Your task to perform on an android device: Go to ESPN.com Image 0: 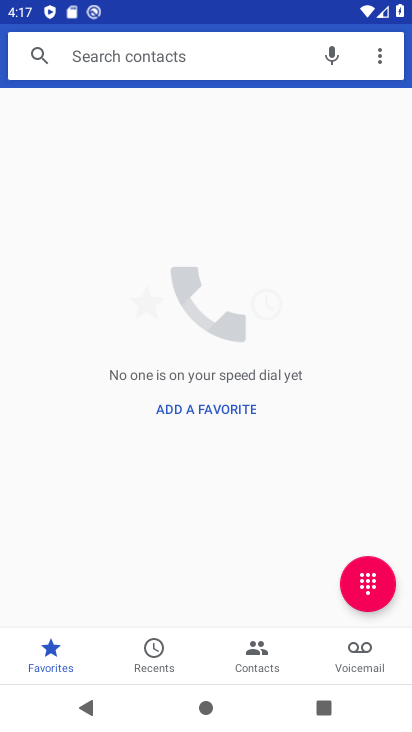
Step 0: press home button
Your task to perform on an android device: Go to ESPN.com Image 1: 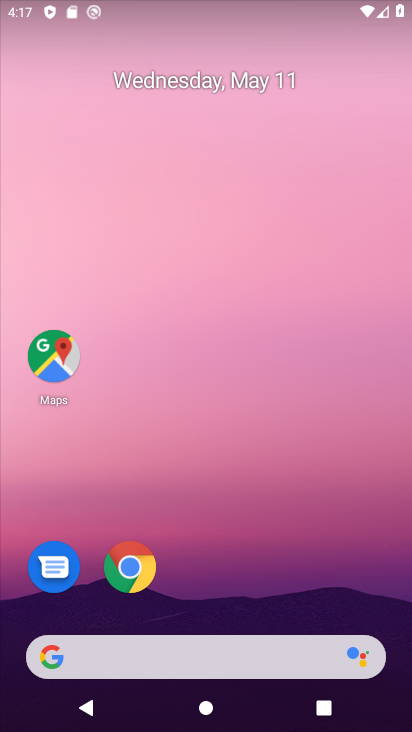
Step 1: click (140, 570)
Your task to perform on an android device: Go to ESPN.com Image 2: 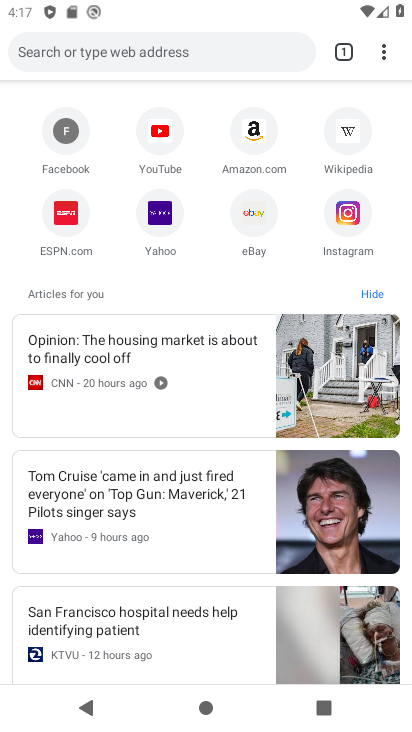
Step 2: click (77, 224)
Your task to perform on an android device: Go to ESPN.com Image 3: 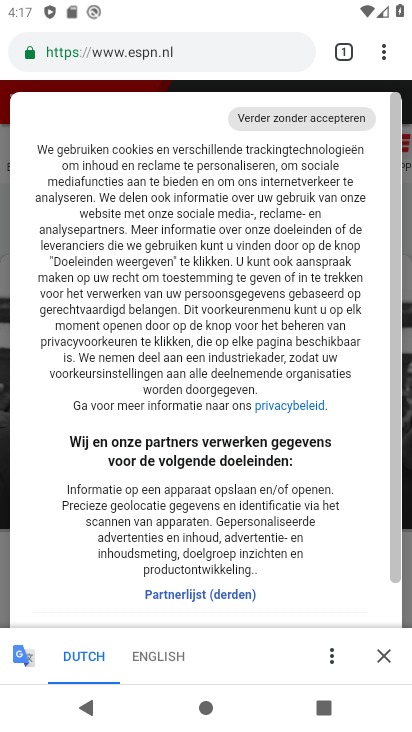
Step 3: task complete